Your task to perform on an android device: Open wifi settings Image 0: 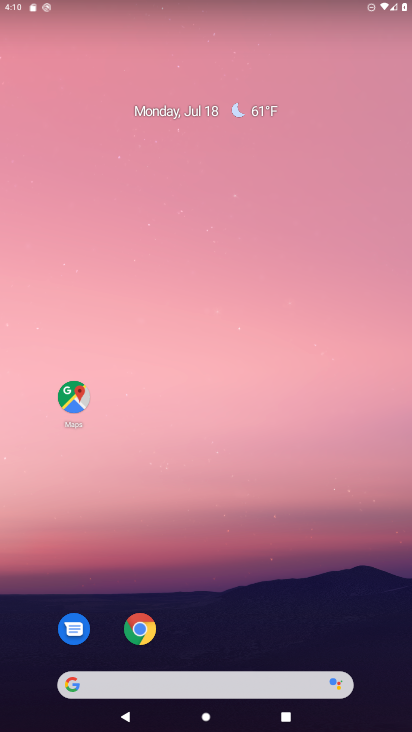
Step 0: drag from (223, 667) to (193, 357)
Your task to perform on an android device: Open wifi settings Image 1: 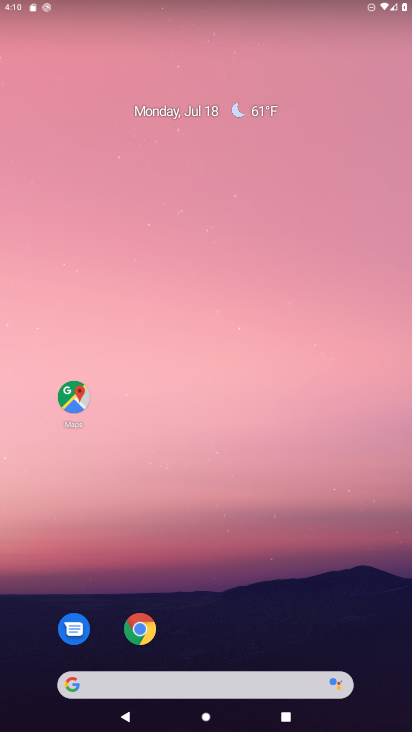
Step 1: drag from (219, 673) to (243, 218)
Your task to perform on an android device: Open wifi settings Image 2: 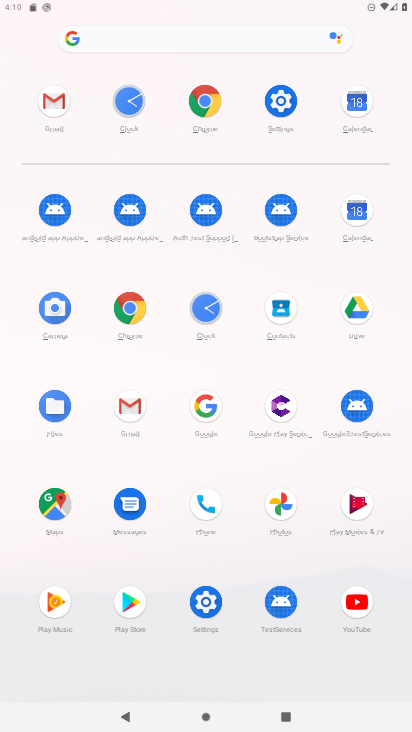
Step 2: click (287, 91)
Your task to perform on an android device: Open wifi settings Image 3: 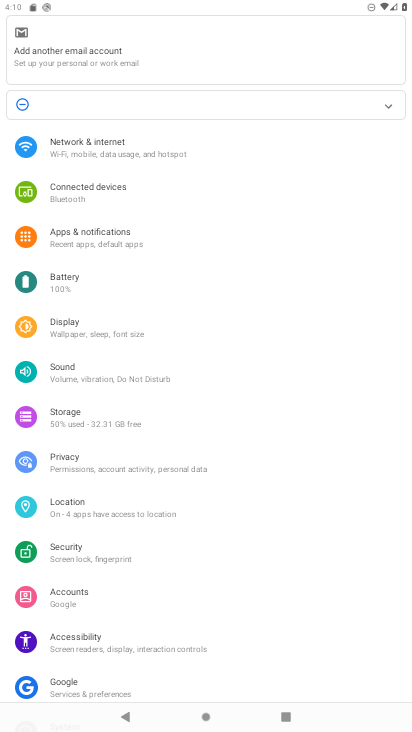
Step 3: click (111, 157)
Your task to perform on an android device: Open wifi settings Image 4: 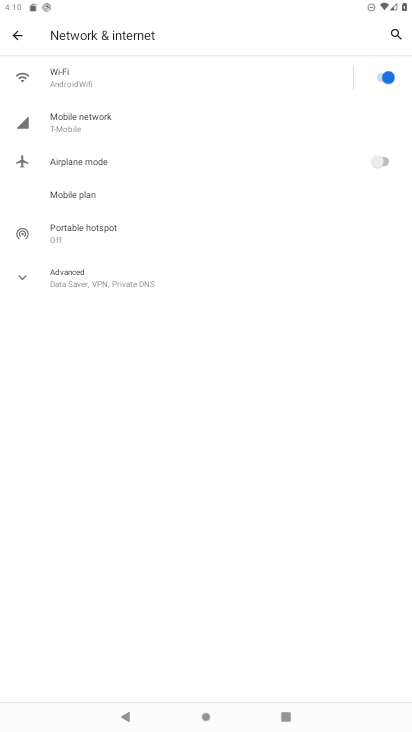
Step 4: click (72, 72)
Your task to perform on an android device: Open wifi settings Image 5: 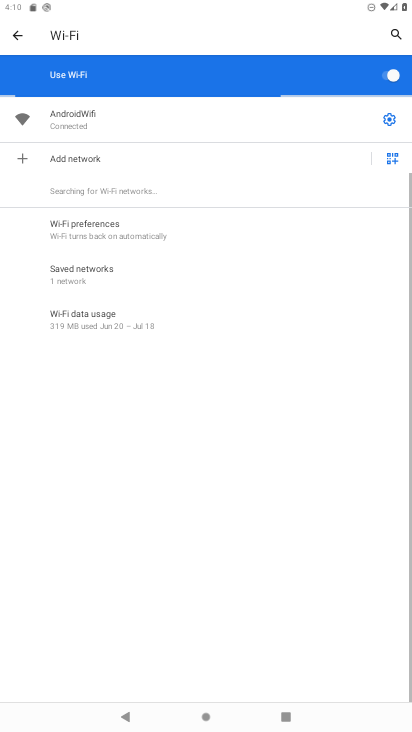
Step 5: click (390, 118)
Your task to perform on an android device: Open wifi settings Image 6: 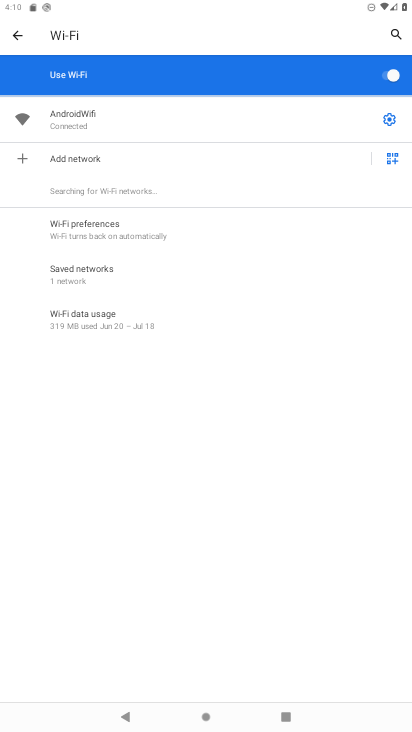
Step 6: click (388, 124)
Your task to perform on an android device: Open wifi settings Image 7: 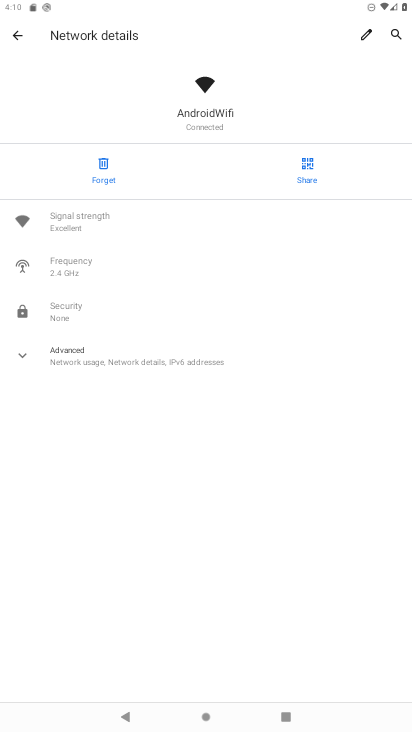
Step 7: click (78, 362)
Your task to perform on an android device: Open wifi settings Image 8: 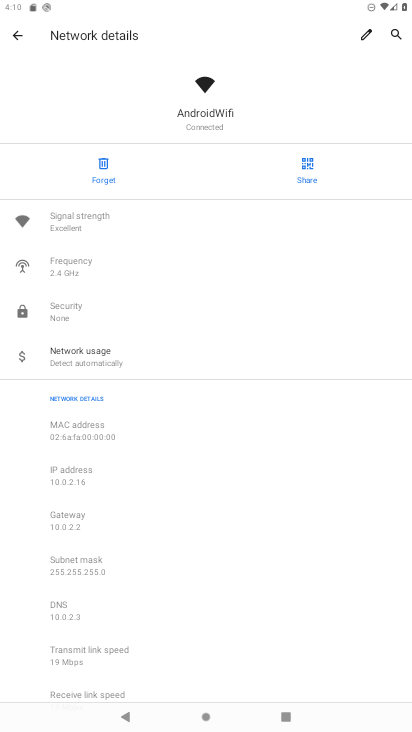
Step 8: task complete